Your task to perform on an android device: turn on translation in the chrome app Image 0: 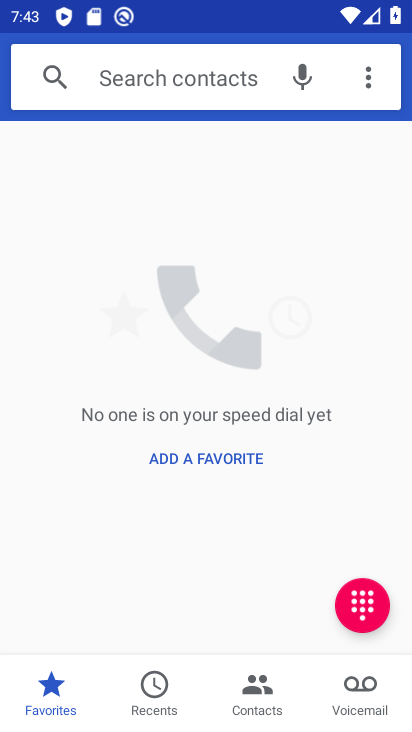
Step 0: press home button
Your task to perform on an android device: turn on translation in the chrome app Image 1: 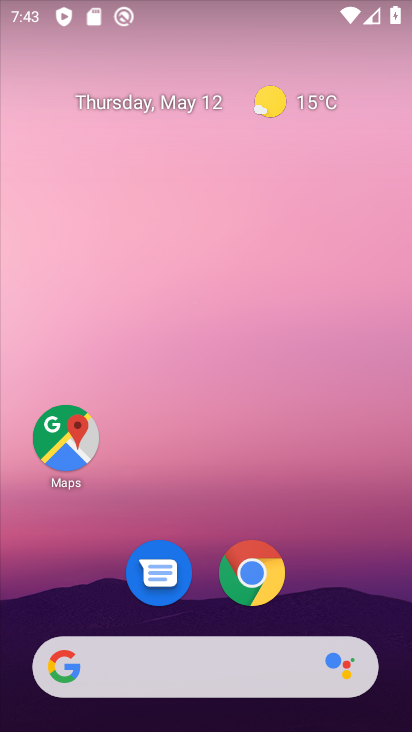
Step 1: click (254, 566)
Your task to perform on an android device: turn on translation in the chrome app Image 2: 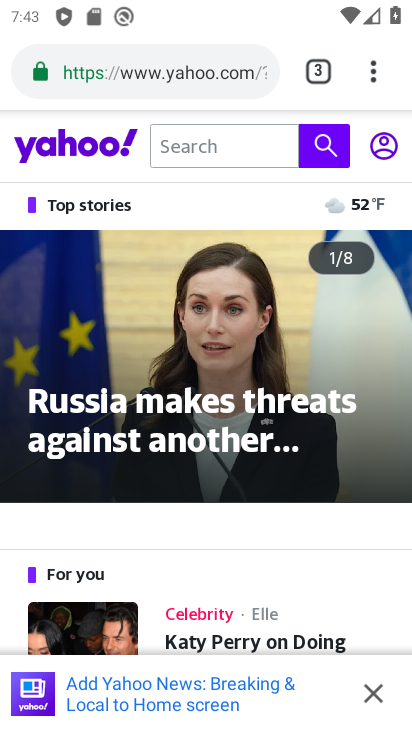
Step 2: click (371, 73)
Your task to perform on an android device: turn on translation in the chrome app Image 3: 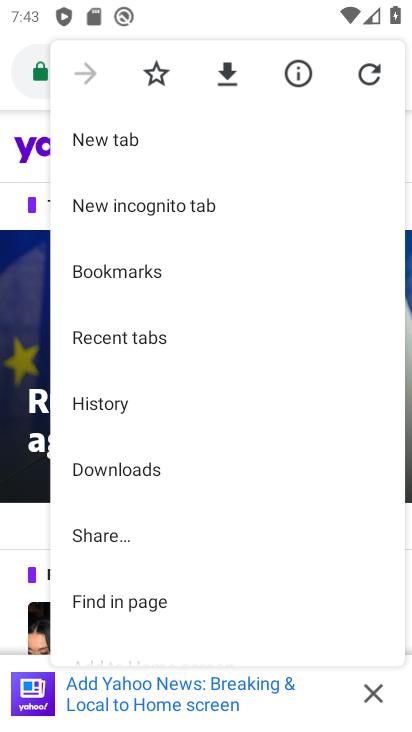
Step 3: drag from (236, 461) to (134, 63)
Your task to perform on an android device: turn on translation in the chrome app Image 4: 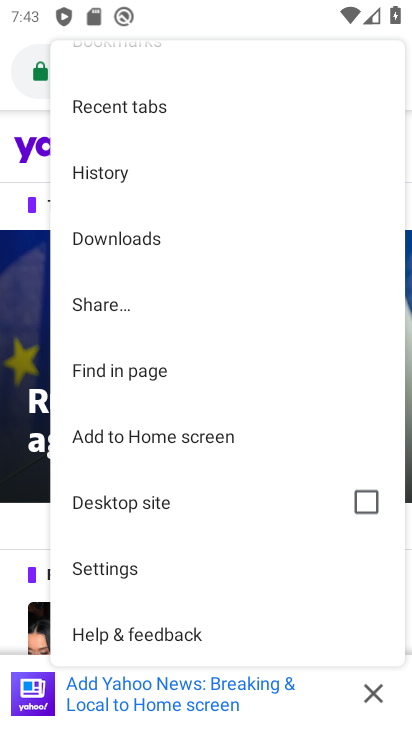
Step 4: click (117, 567)
Your task to perform on an android device: turn on translation in the chrome app Image 5: 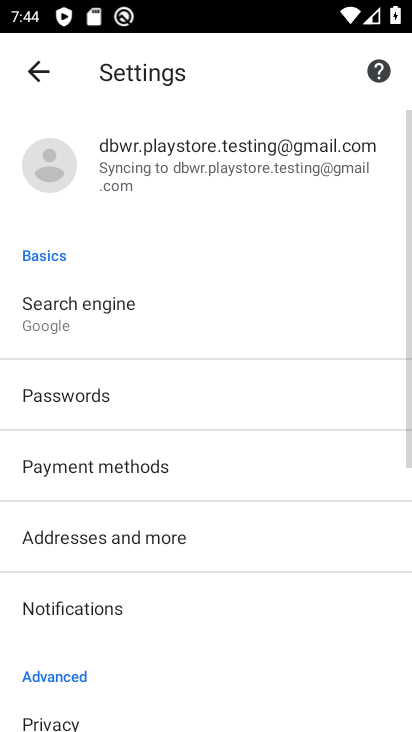
Step 5: drag from (287, 496) to (174, 128)
Your task to perform on an android device: turn on translation in the chrome app Image 6: 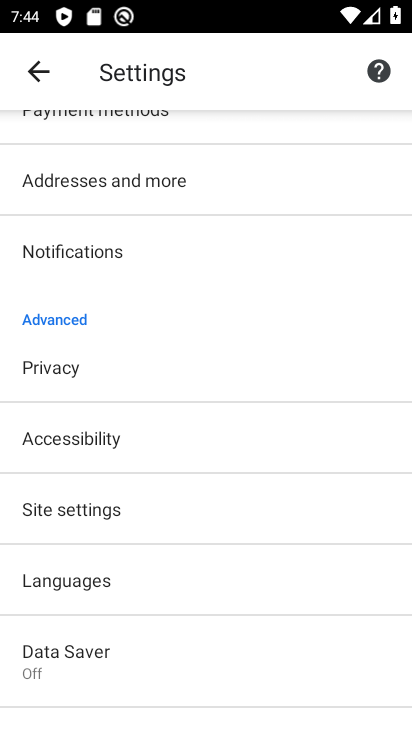
Step 6: click (67, 580)
Your task to perform on an android device: turn on translation in the chrome app Image 7: 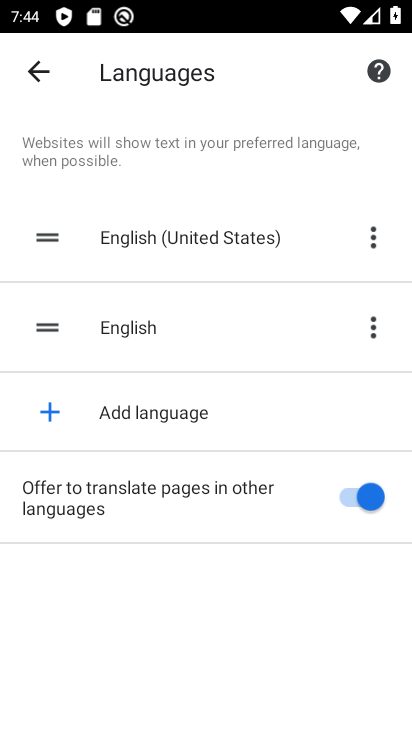
Step 7: task complete